Your task to perform on an android device: turn on the 12-hour format for clock Image 0: 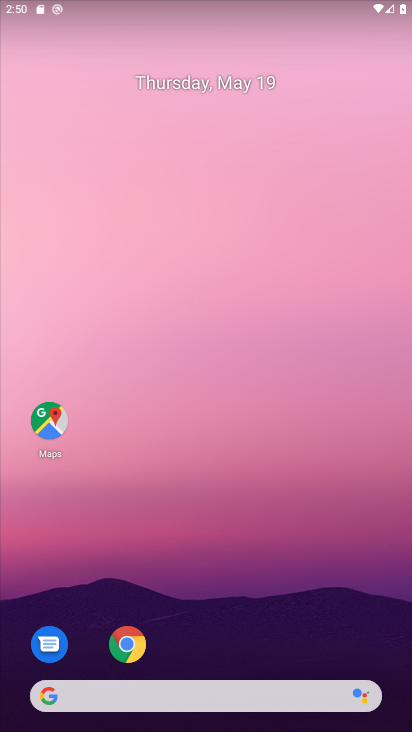
Step 0: drag from (284, 579) to (310, 241)
Your task to perform on an android device: turn on the 12-hour format for clock Image 1: 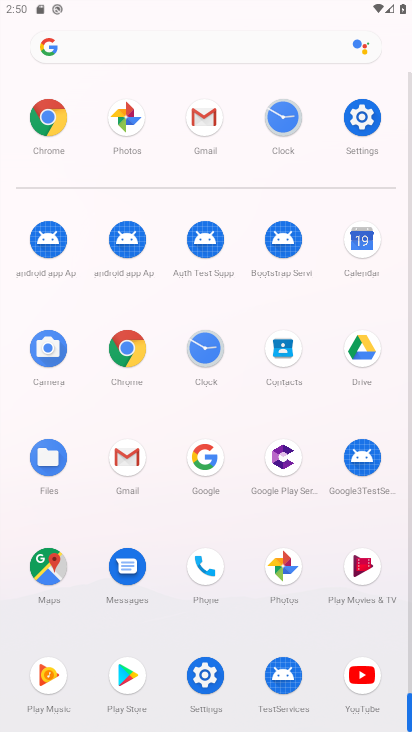
Step 1: click (193, 346)
Your task to perform on an android device: turn on the 12-hour format for clock Image 2: 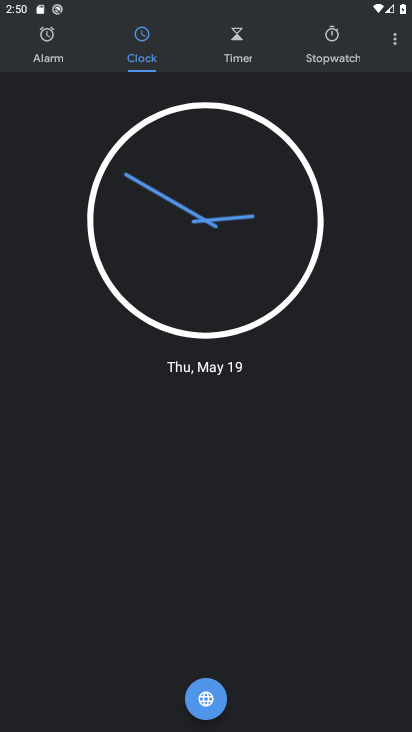
Step 2: click (394, 33)
Your task to perform on an android device: turn on the 12-hour format for clock Image 3: 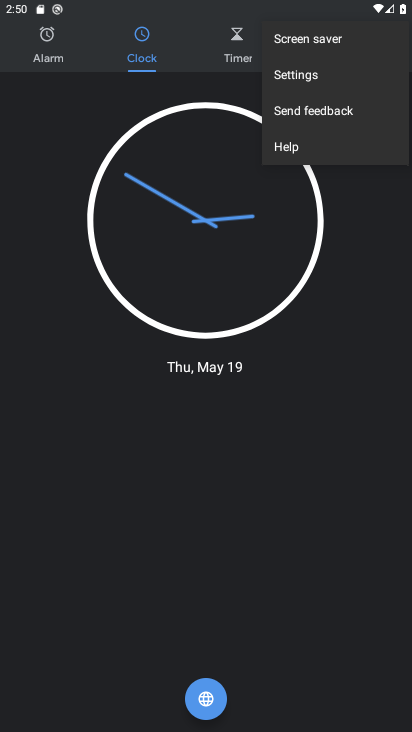
Step 3: click (333, 71)
Your task to perform on an android device: turn on the 12-hour format for clock Image 4: 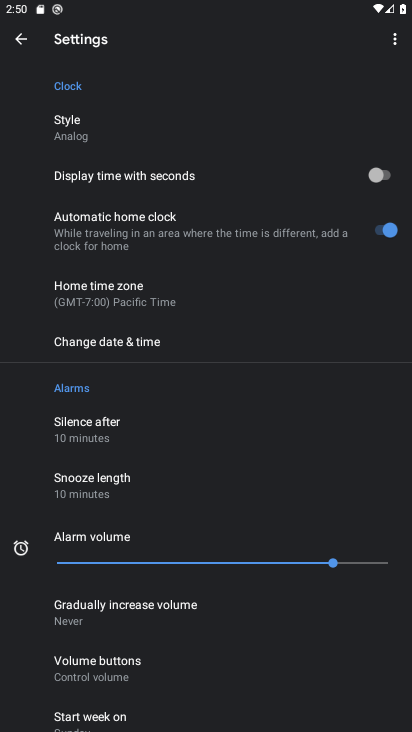
Step 4: click (140, 329)
Your task to perform on an android device: turn on the 12-hour format for clock Image 5: 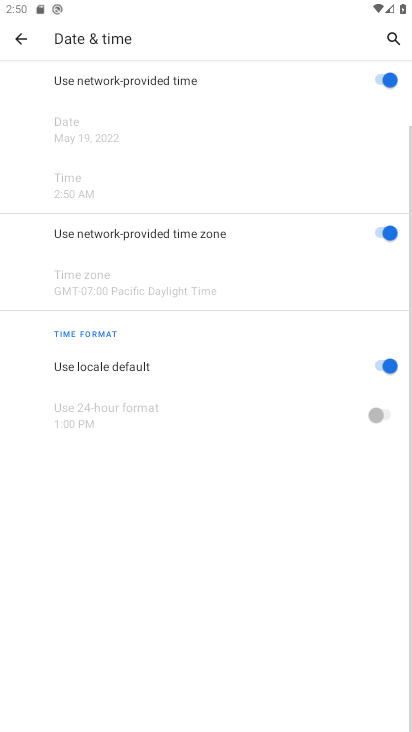
Step 5: click (387, 367)
Your task to perform on an android device: turn on the 12-hour format for clock Image 6: 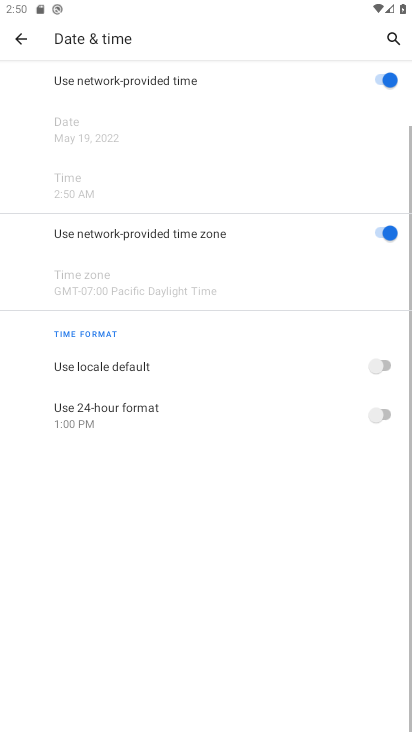
Step 6: click (374, 415)
Your task to perform on an android device: turn on the 12-hour format for clock Image 7: 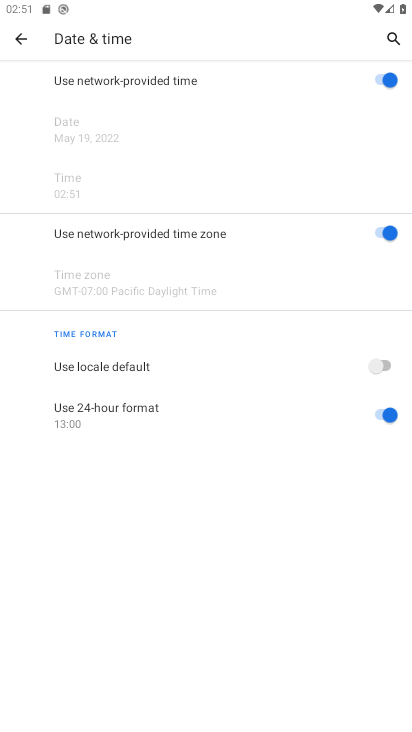
Step 7: task complete